Your task to perform on an android device: turn off translation in the chrome app Image 0: 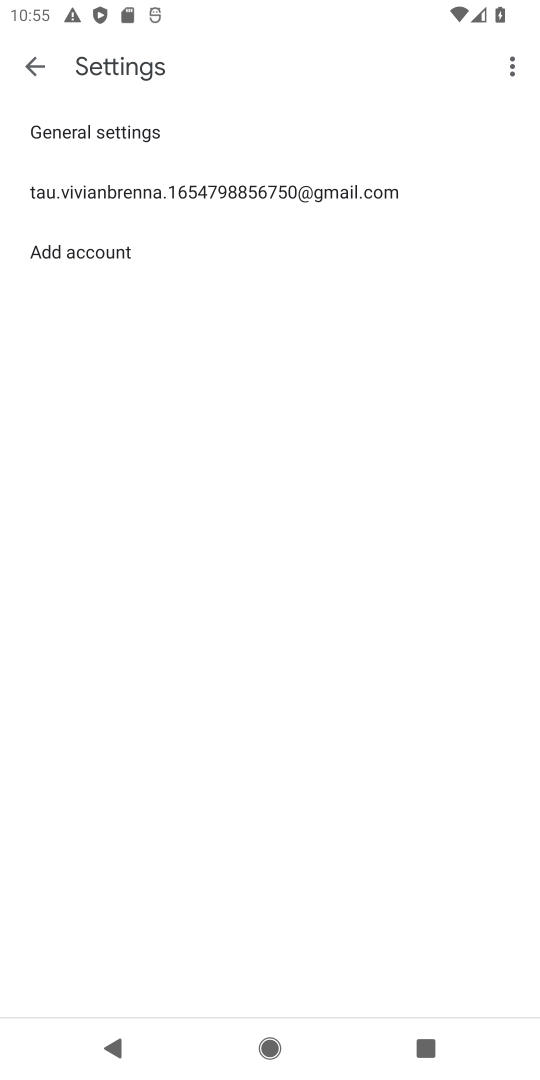
Step 0: press home button
Your task to perform on an android device: turn off translation in the chrome app Image 1: 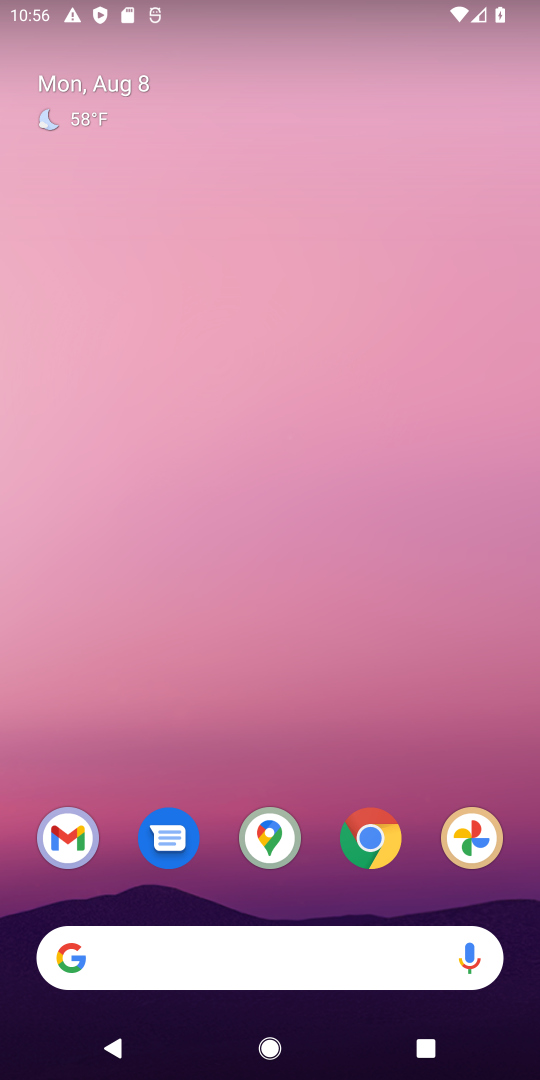
Step 1: click (376, 845)
Your task to perform on an android device: turn off translation in the chrome app Image 2: 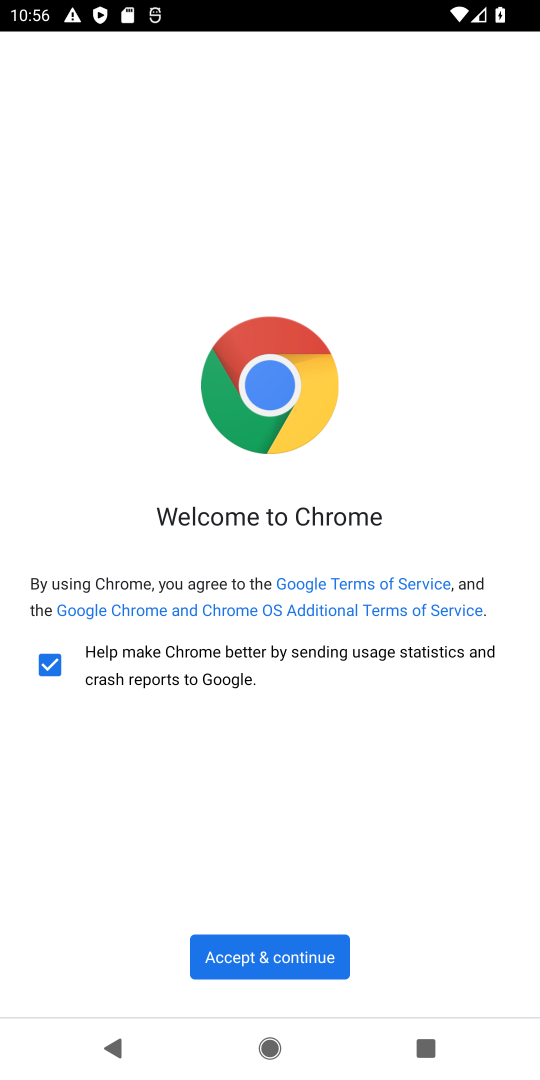
Step 2: click (249, 960)
Your task to perform on an android device: turn off translation in the chrome app Image 3: 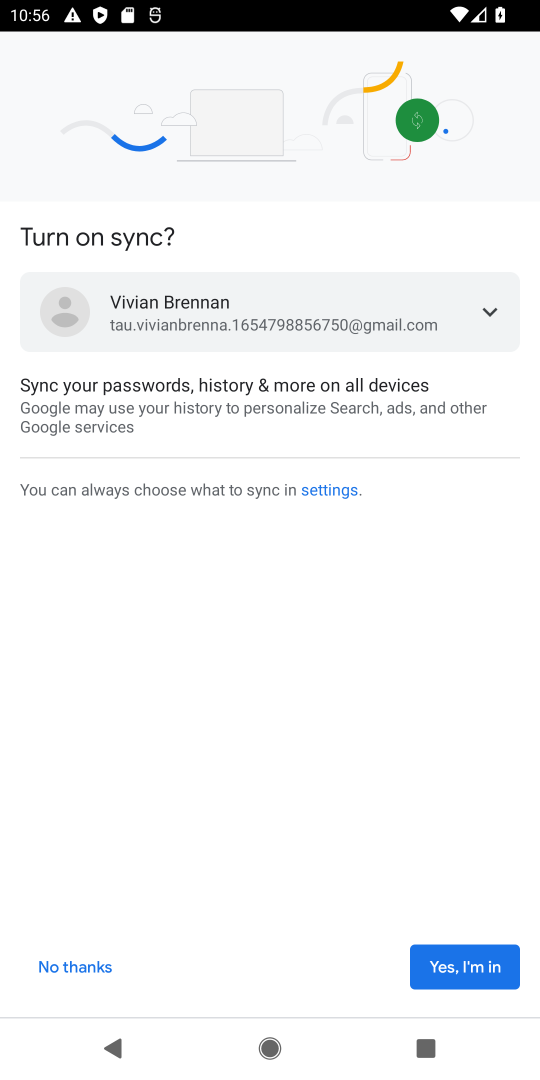
Step 3: click (480, 957)
Your task to perform on an android device: turn off translation in the chrome app Image 4: 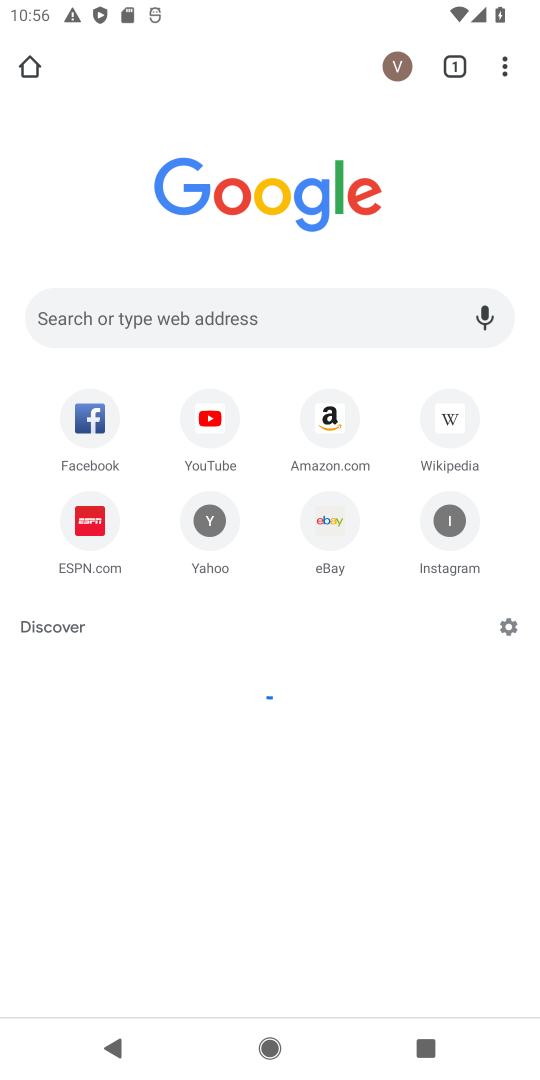
Step 4: drag from (509, 64) to (319, 601)
Your task to perform on an android device: turn off translation in the chrome app Image 5: 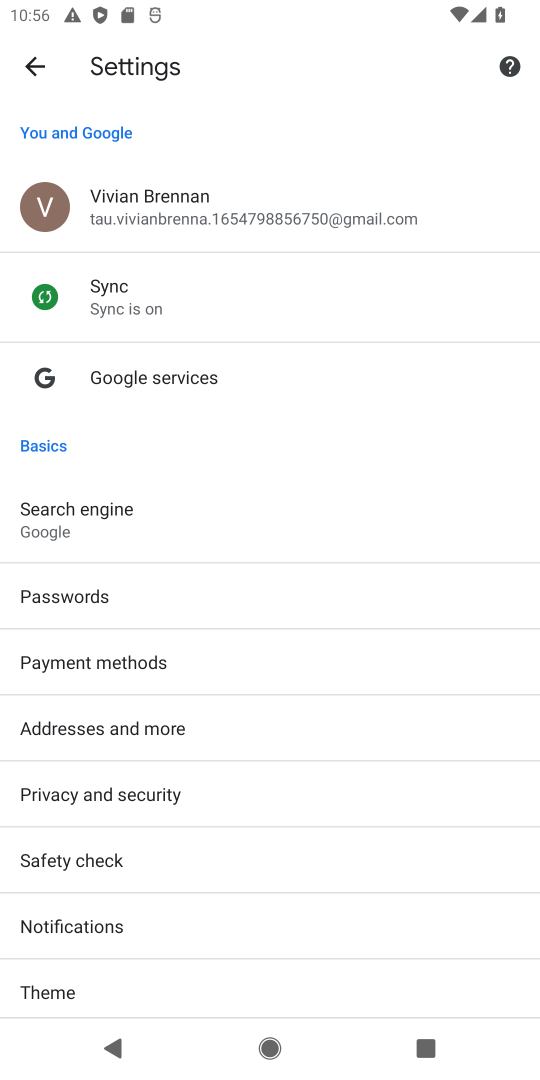
Step 5: drag from (274, 920) to (211, 251)
Your task to perform on an android device: turn off translation in the chrome app Image 6: 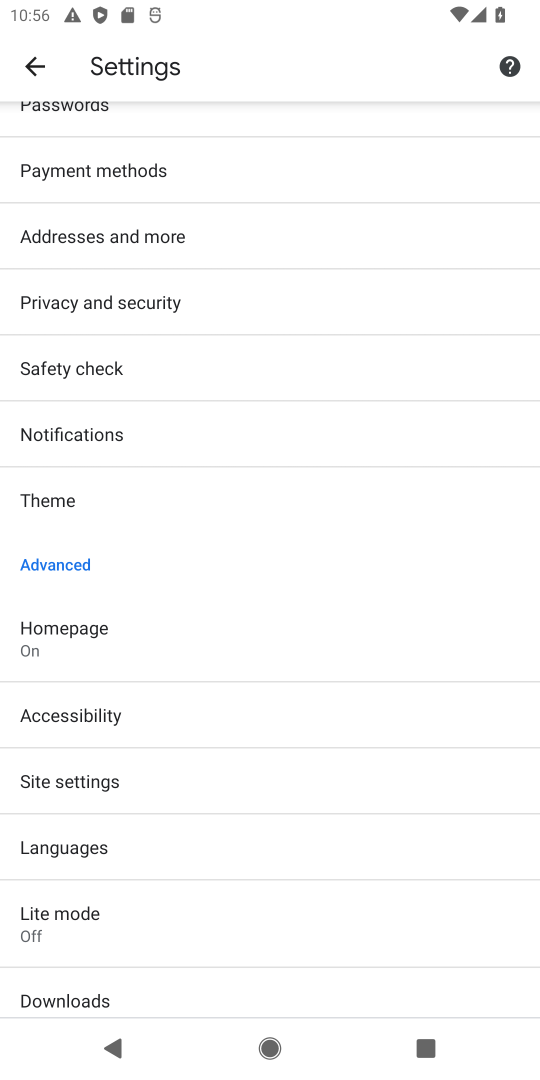
Step 6: click (63, 853)
Your task to perform on an android device: turn off translation in the chrome app Image 7: 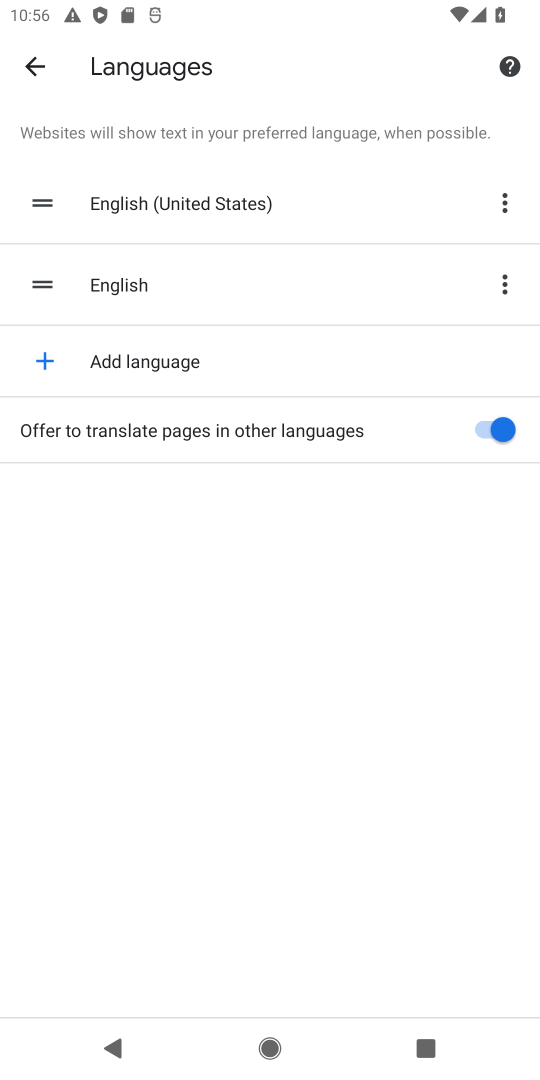
Step 7: click (497, 430)
Your task to perform on an android device: turn off translation in the chrome app Image 8: 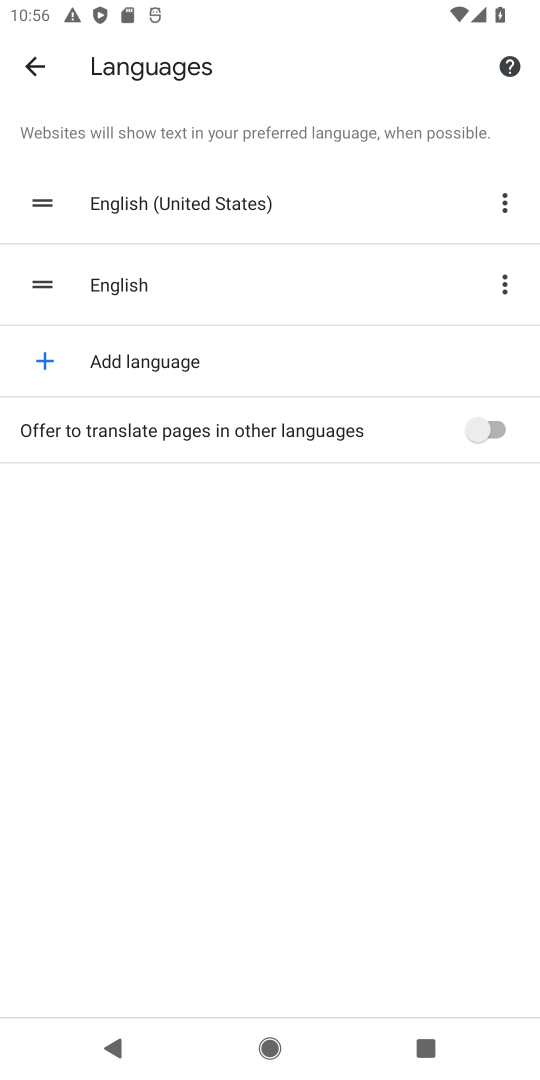
Step 8: task complete